Your task to perform on an android device: check storage Image 0: 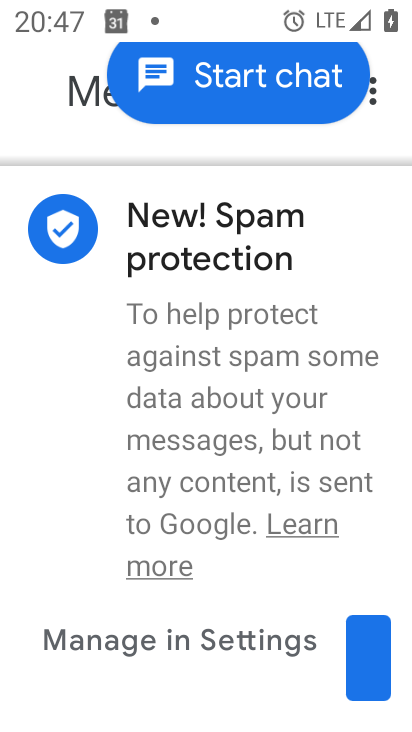
Step 0: drag from (189, 630) to (280, 163)
Your task to perform on an android device: check storage Image 1: 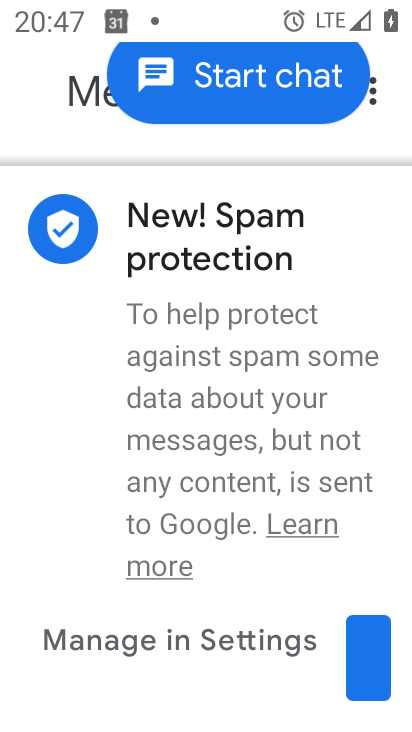
Step 1: press home button
Your task to perform on an android device: check storage Image 2: 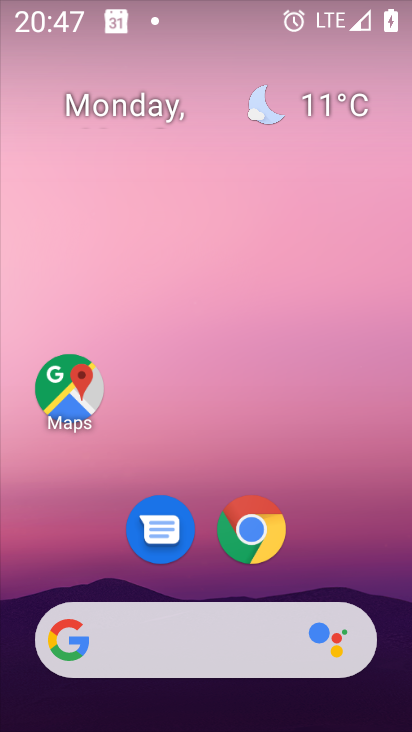
Step 2: drag from (198, 646) to (336, 2)
Your task to perform on an android device: check storage Image 3: 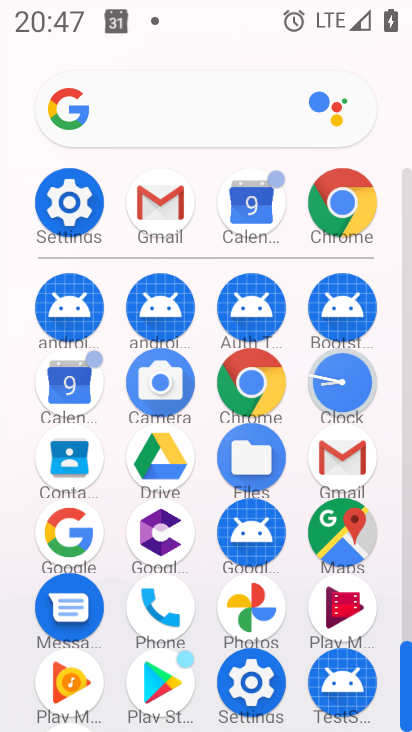
Step 3: click (66, 194)
Your task to perform on an android device: check storage Image 4: 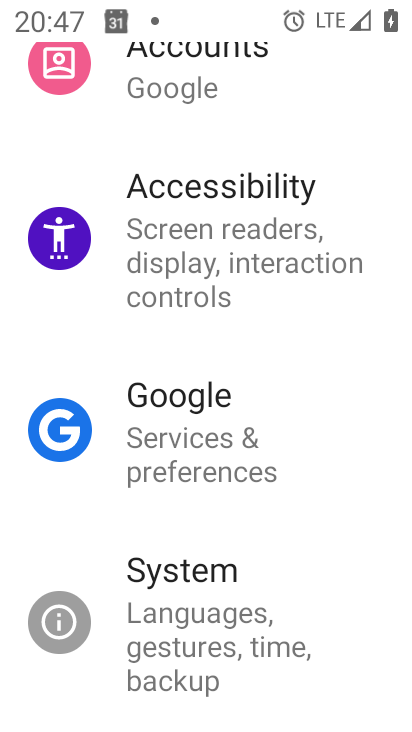
Step 4: drag from (241, 135) to (125, 713)
Your task to perform on an android device: check storage Image 5: 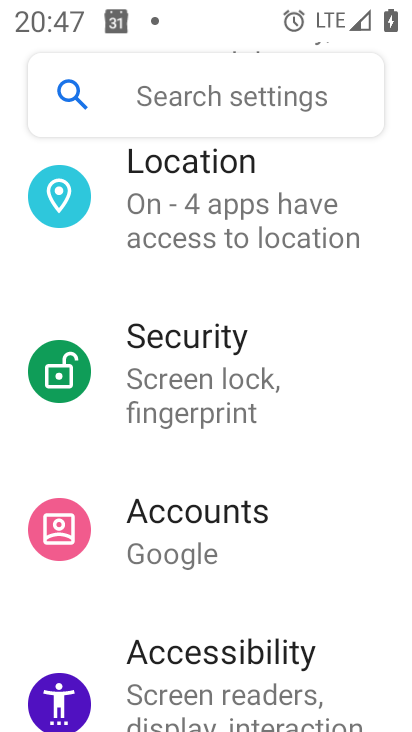
Step 5: drag from (202, 204) to (311, 690)
Your task to perform on an android device: check storage Image 6: 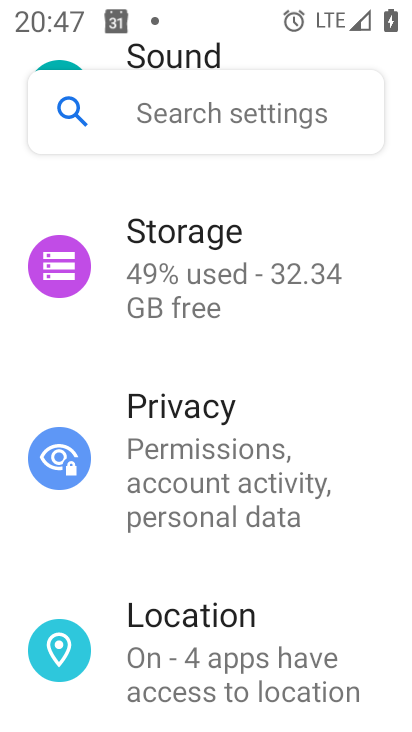
Step 6: click (185, 276)
Your task to perform on an android device: check storage Image 7: 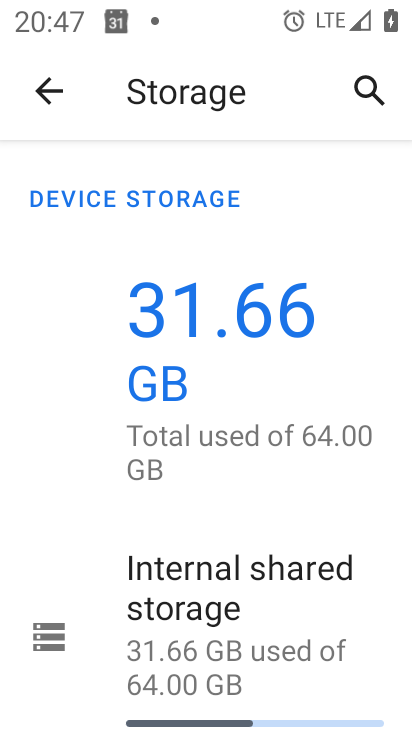
Step 7: drag from (224, 616) to (269, 53)
Your task to perform on an android device: check storage Image 8: 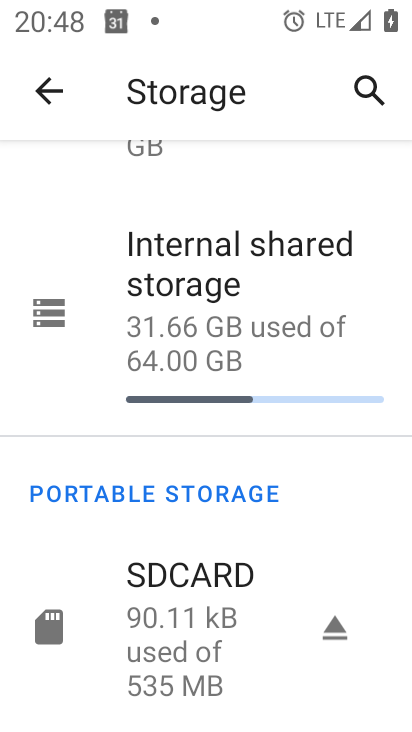
Step 8: click (245, 281)
Your task to perform on an android device: check storage Image 9: 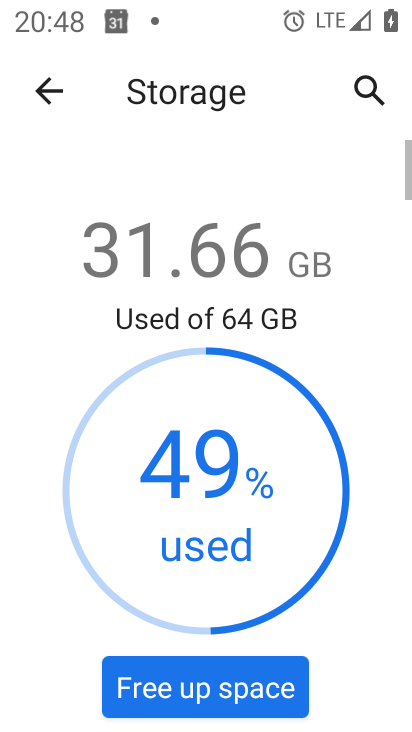
Step 9: task complete